Your task to perform on an android device: turn off sleep mode Image 0: 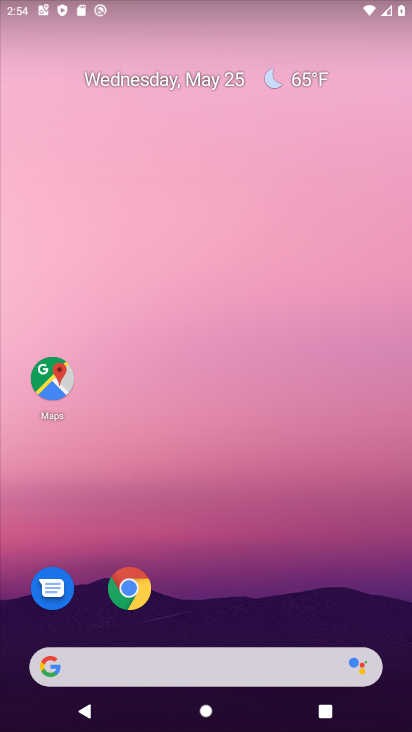
Step 0: drag from (272, 319) to (298, 143)
Your task to perform on an android device: turn off sleep mode Image 1: 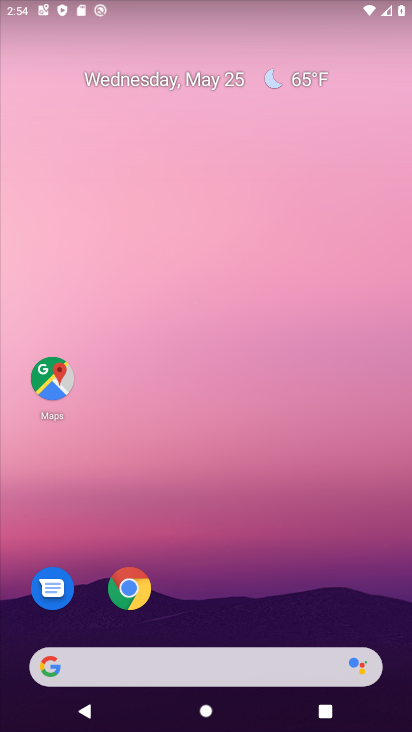
Step 1: drag from (230, 448) to (281, 120)
Your task to perform on an android device: turn off sleep mode Image 2: 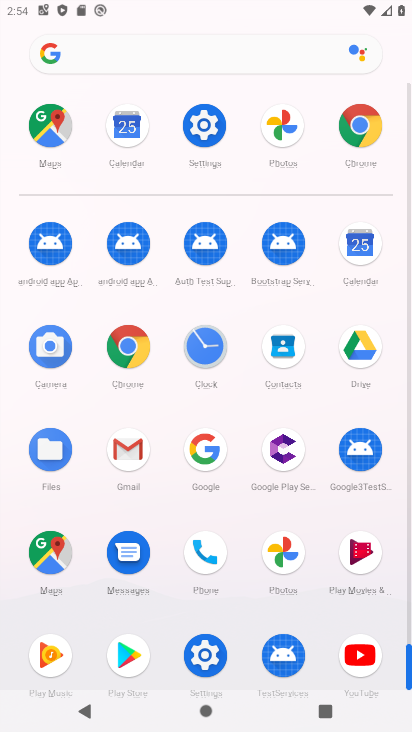
Step 2: click (205, 125)
Your task to perform on an android device: turn off sleep mode Image 3: 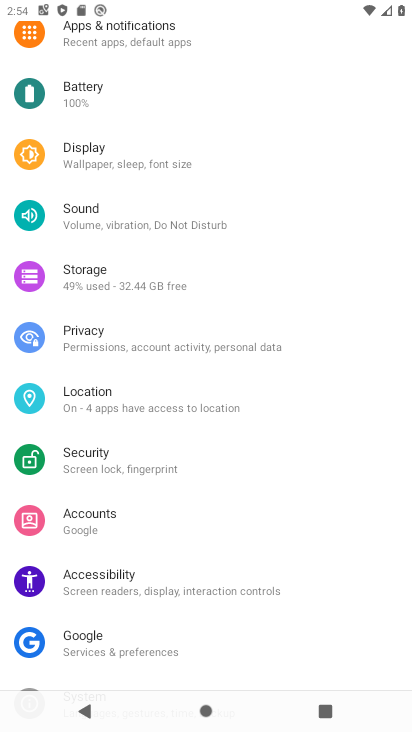
Step 3: click (122, 165)
Your task to perform on an android device: turn off sleep mode Image 4: 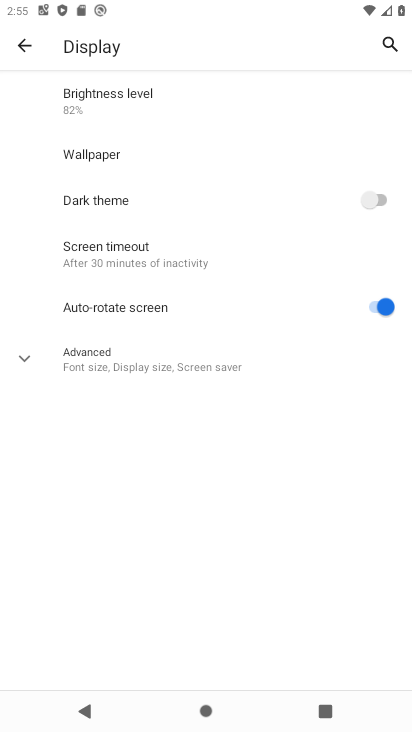
Step 4: task complete